Your task to perform on an android device: refresh tabs in the chrome app Image 0: 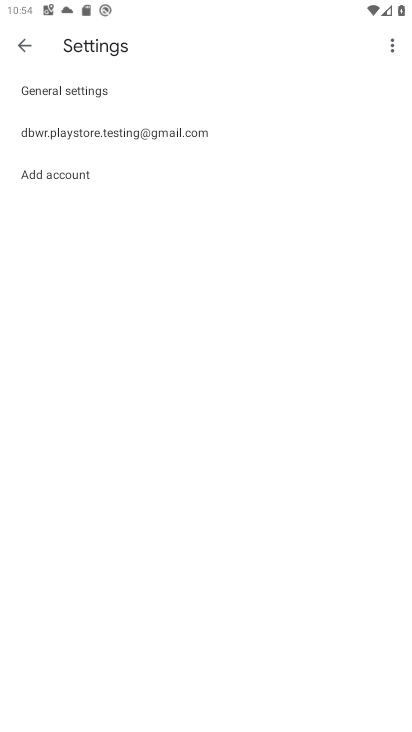
Step 0: press home button
Your task to perform on an android device: refresh tabs in the chrome app Image 1: 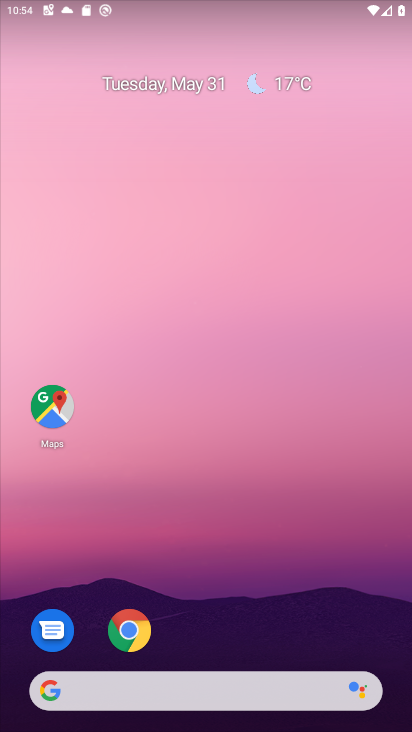
Step 1: click (125, 623)
Your task to perform on an android device: refresh tabs in the chrome app Image 2: 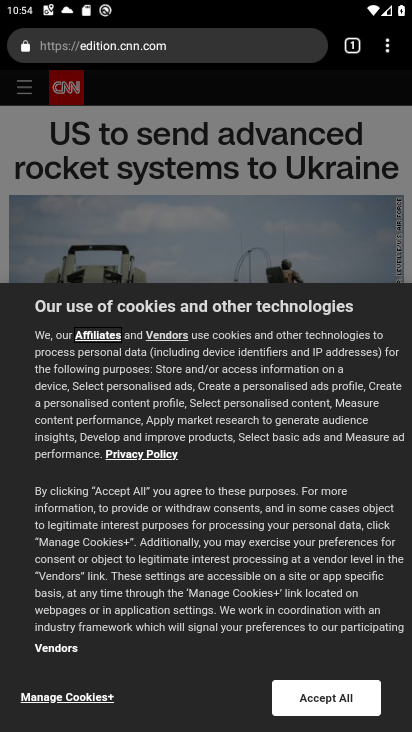
Step 2: click (389, 44)
Your task to perform on an android device: refresh tabs in the chrome app Image 3: 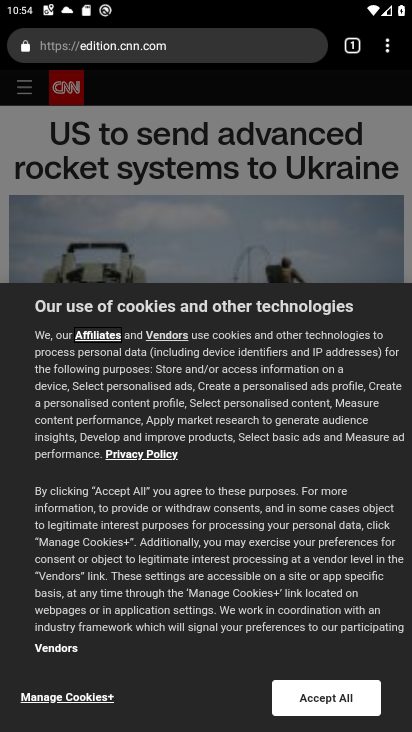
Step 3: task complete